Your task to perform on an android device: Open calendar and show me the second week of next month Image 0: 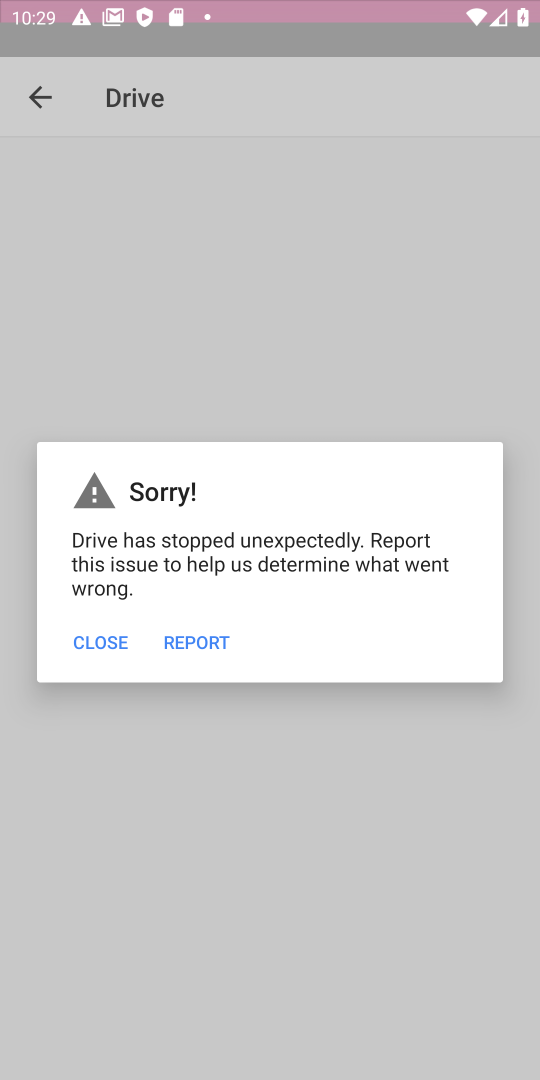
Step 0: press home button
Your task to perform on an android device: Open calendar and show me the second week of next month Image 1: 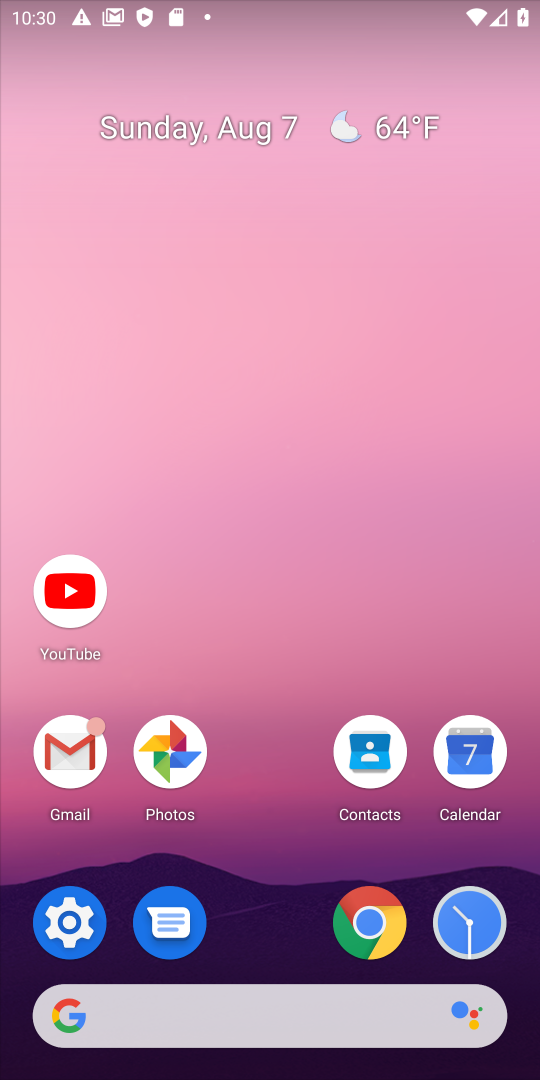
Step 1: click (477, 761)
Your task to perform on an android device: Open calendar and show me the second week of next month Image 2: 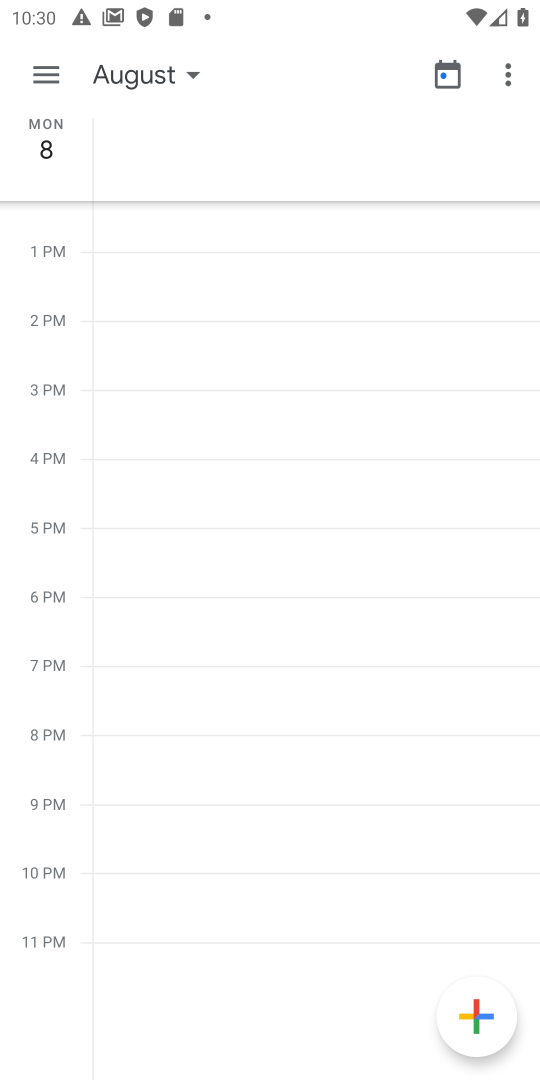
Step 2: click (38, 64)
Your task to perform on an android device: Open calendar and show me the second week of next month Image 3: 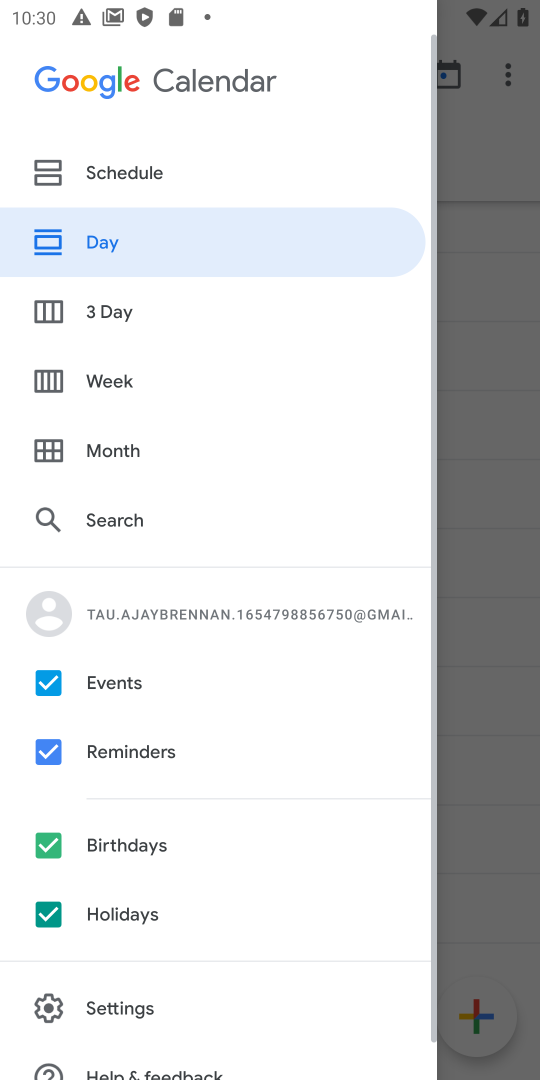
Step 3: click (95, 380)
Your task to perform on an android device: Open calendar and show me the second week of next month Image 4: 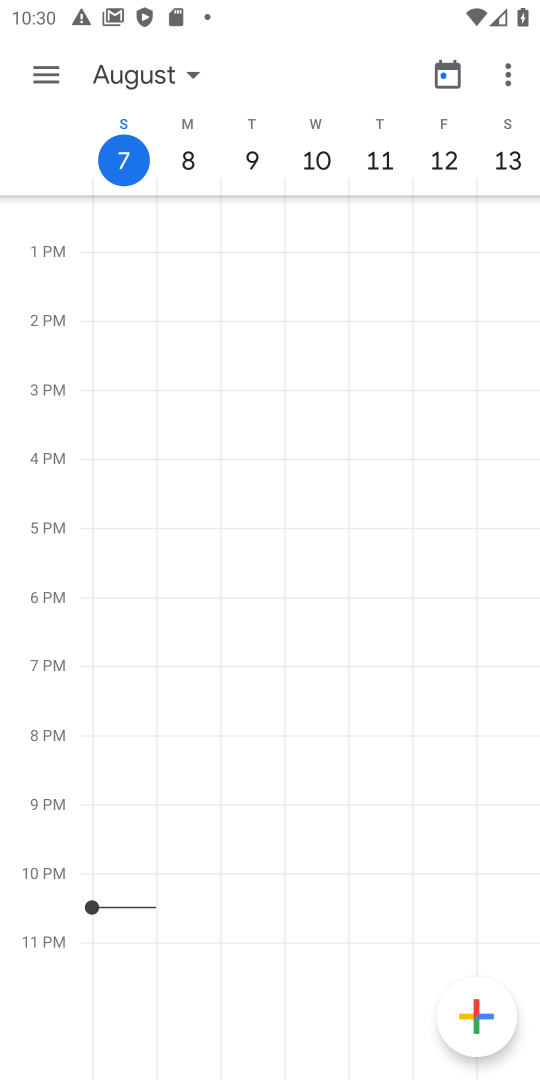
Step 4: click (183, 65)
Your task to perform on an android device: Open calendar and show me the second week of next month Image 5: 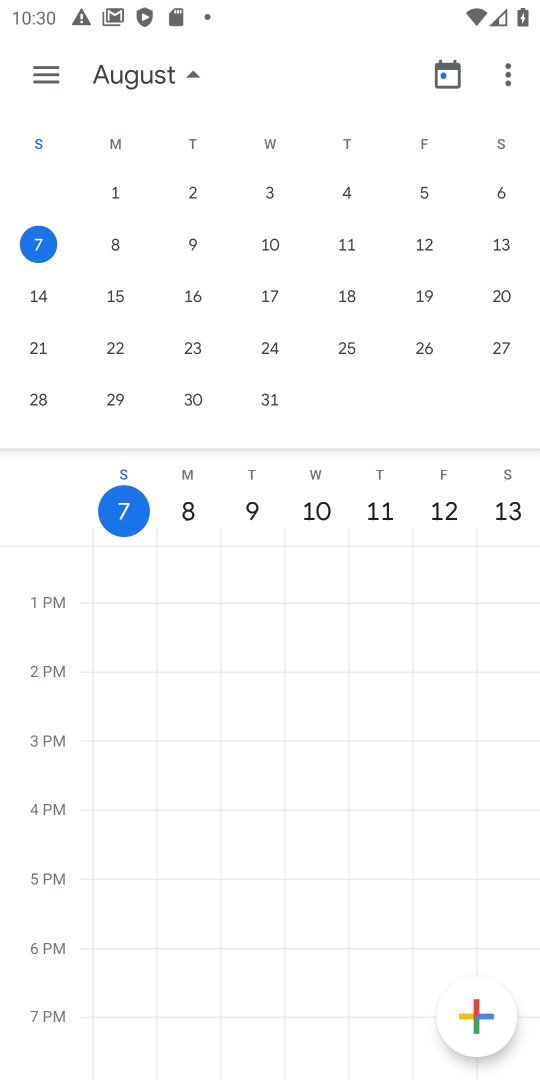
Step 5: drag from (502, 239) to (45, 147)
Your task to perform on an android device: Open calendar and show me the second week of next month Image 6: 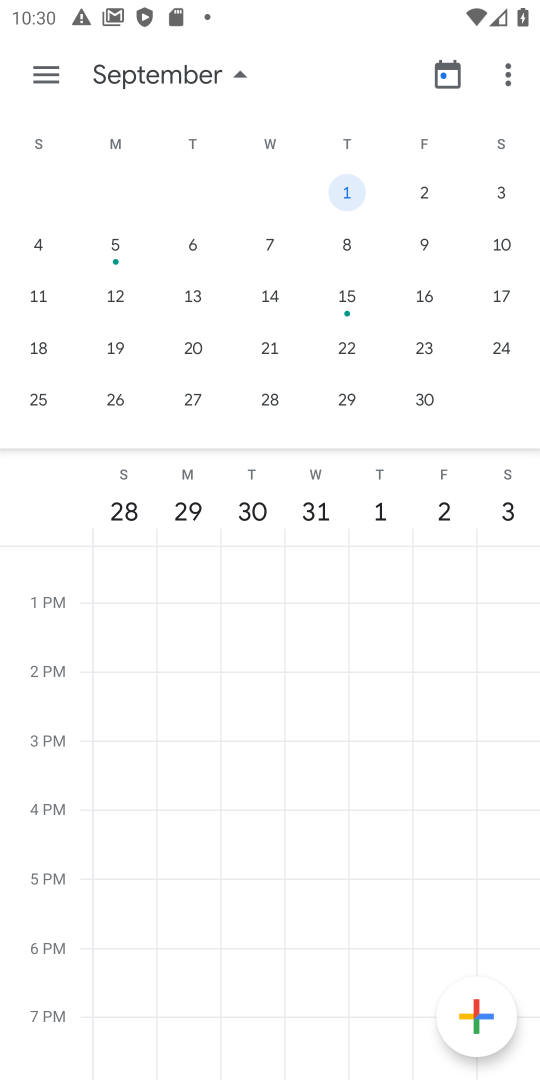
Step 6: click (268, 245)
Your task to perform on an android device: Open calendar and show me the second week of next month Image 7: 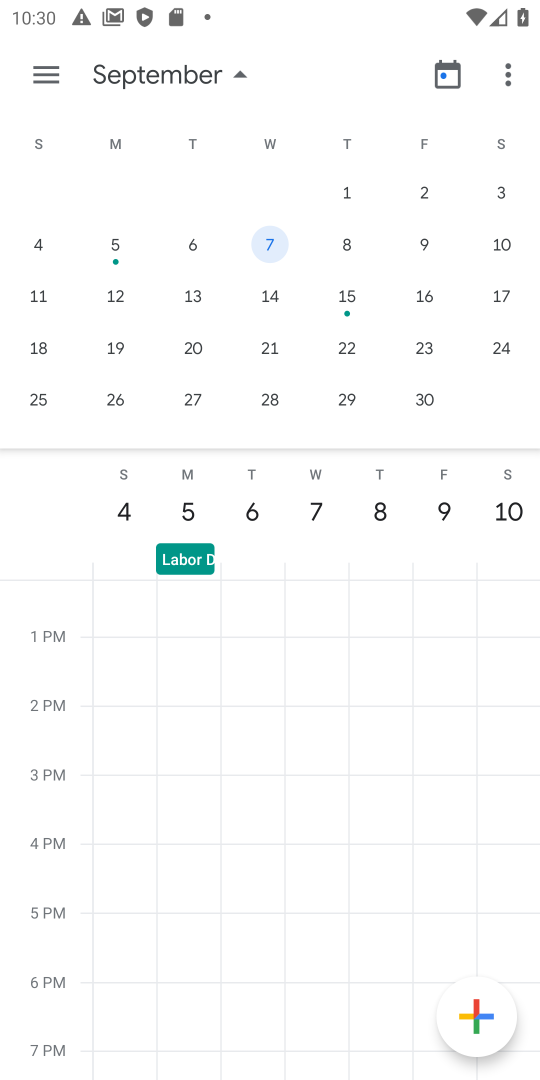
Step 7: task complete